Your task to perform on an android device: turn pop-ups on in chrome Image 0: 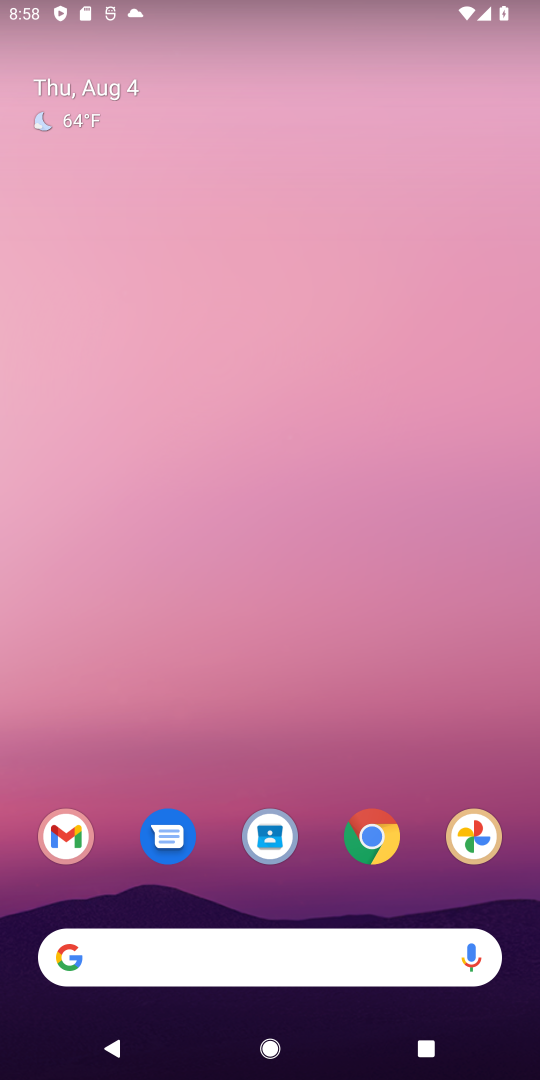
Step 0: click (360, 829)
Your task to perform on an android device: turn pop-ups on in chrome Image 1: 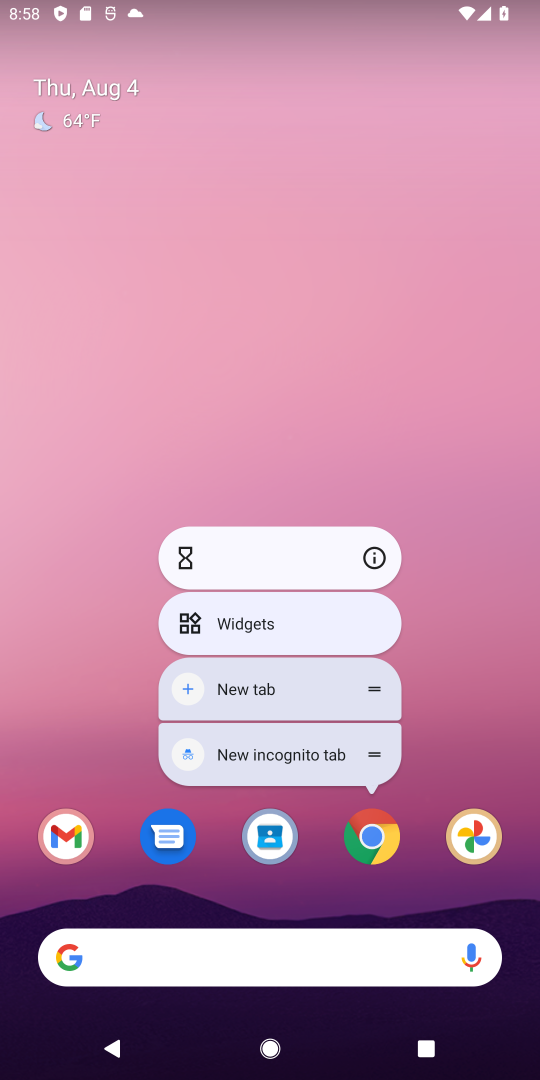
Step 1: click (388, 849)
Your task to perform on an android device: turn pop-ups on in chrome Image 2: 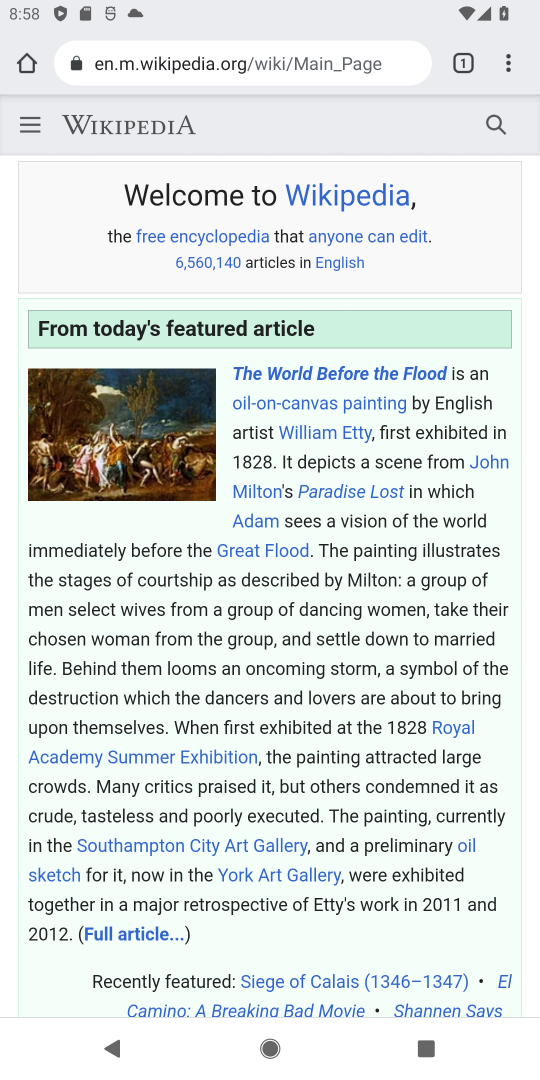
Step 2: drag from (514, 64) to (337, 749)
Your task to perform on an android device: turn pop-ups on in chrome Image 3: 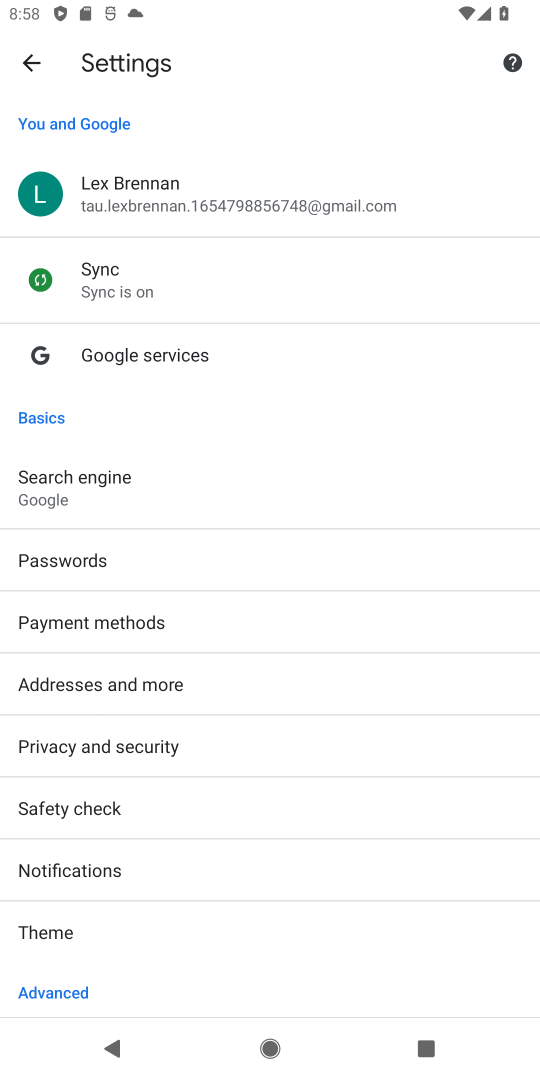
Step 3: drag from (200, 839) to (362, 39)
Your task to perform on an android device: turn pop-ups on in chrome Image 4: 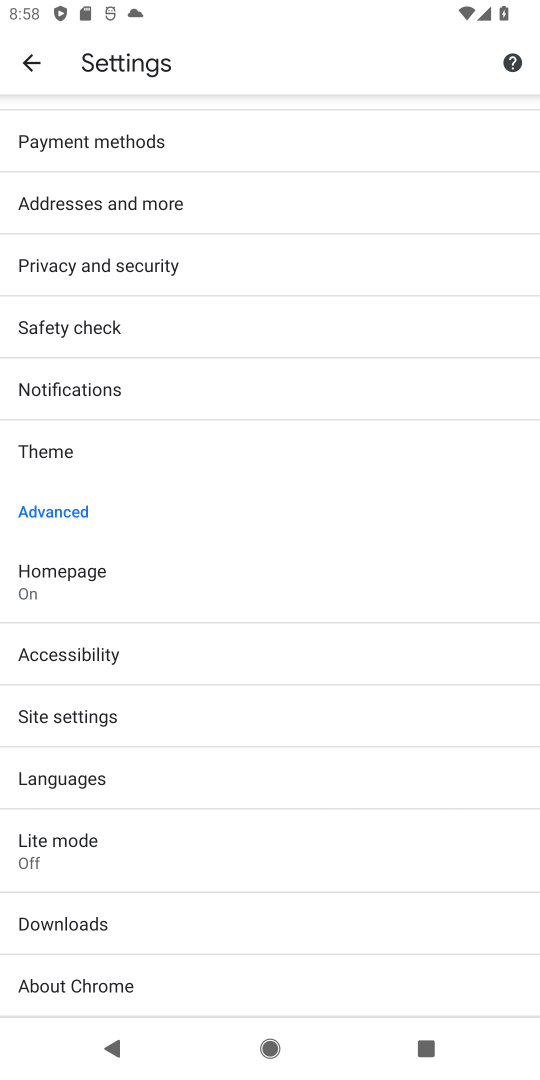
Step 4: click (78, 712)
Your task to perform on an android device: turn pop-ups on in chrome Image 5: 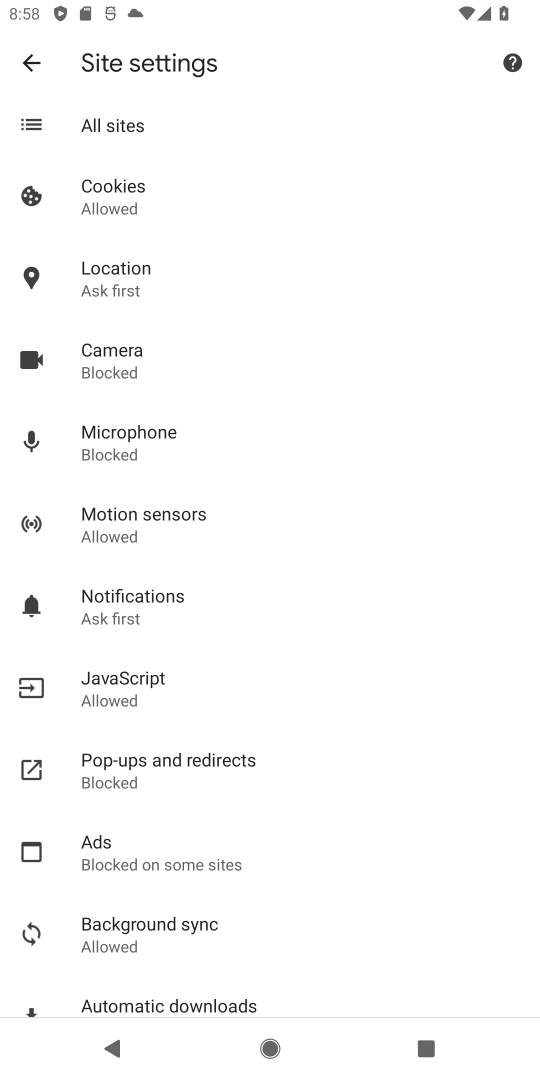
Step 5: click (167, 770)
Your task to perform on an android device: turn pop-ups on in chrome Image 6: 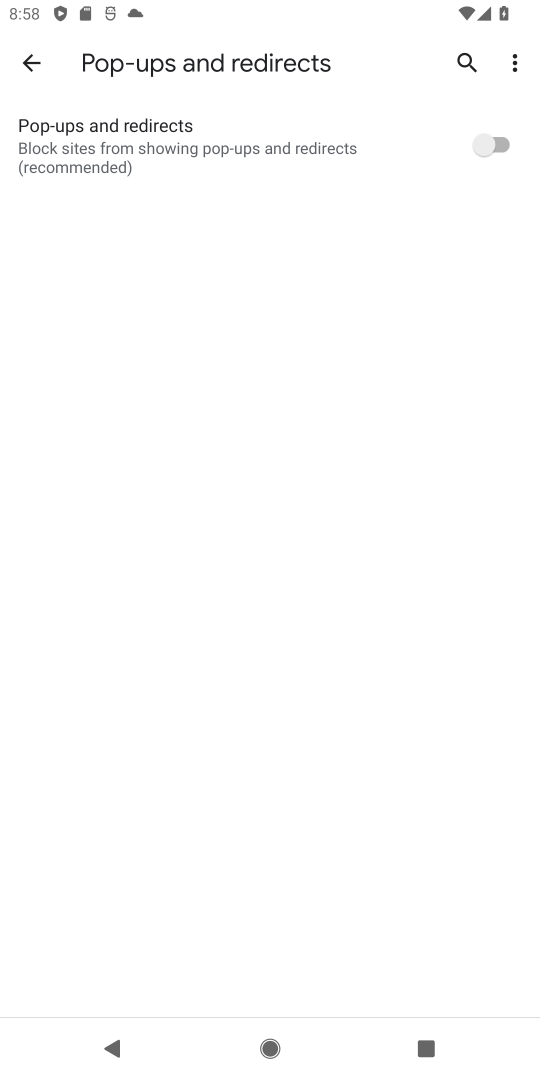
Step 6: click (488, 139)
Your task to perform on an android device: turn pop-ups on in chrome Image 7: 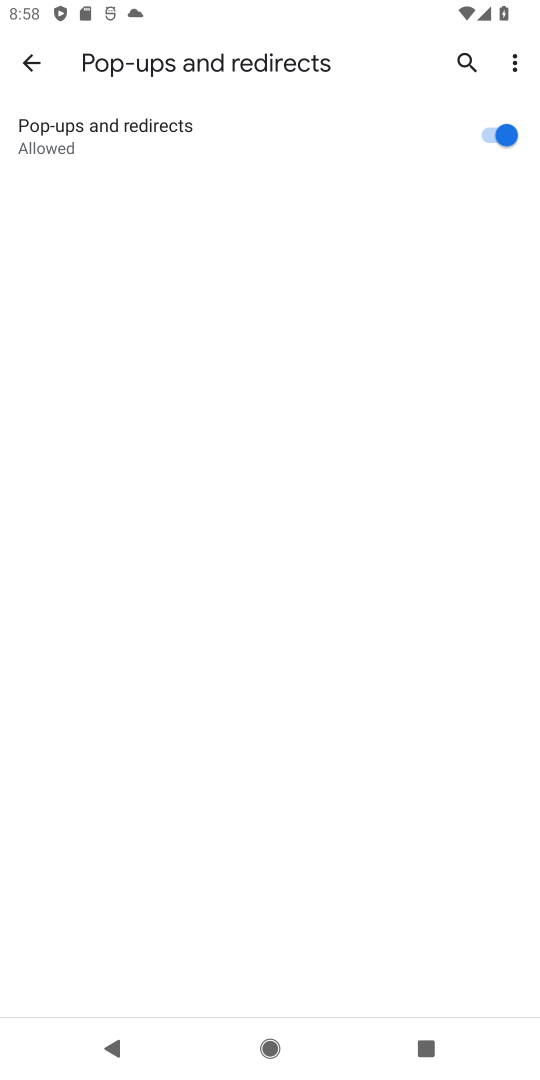
Step 7: task complete